Your task to perform on an android device: turn on translation in the chrome app Image 0: 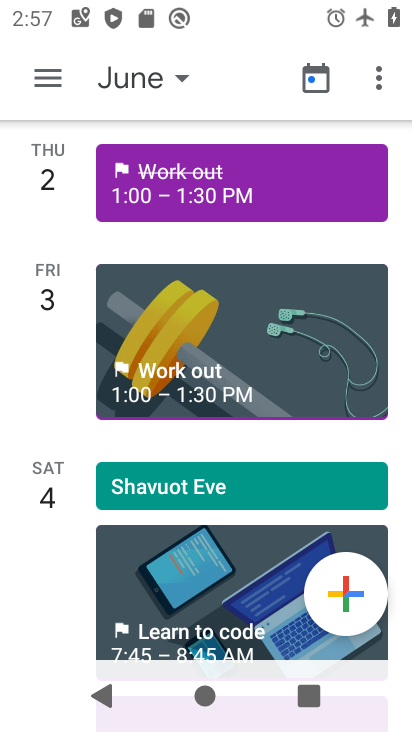
Step 0: press home button
Your task to perform on an android device: turn on translation in the chrome app Image 1: 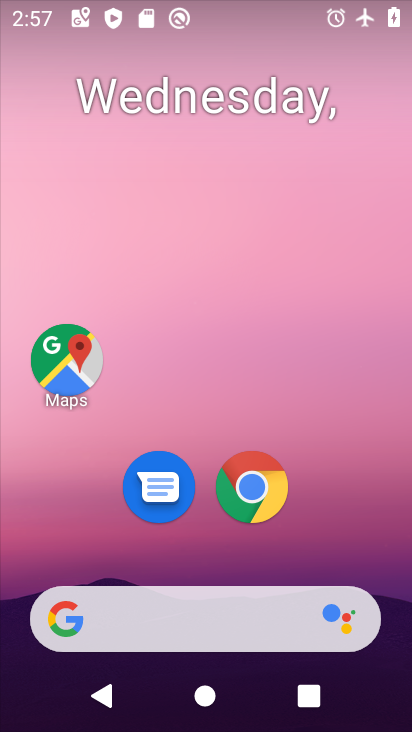
Step 1: drag from (378, 554) to (362, 141)
Your task to perform on an android device: turn on translation in the chrome app Image 2: 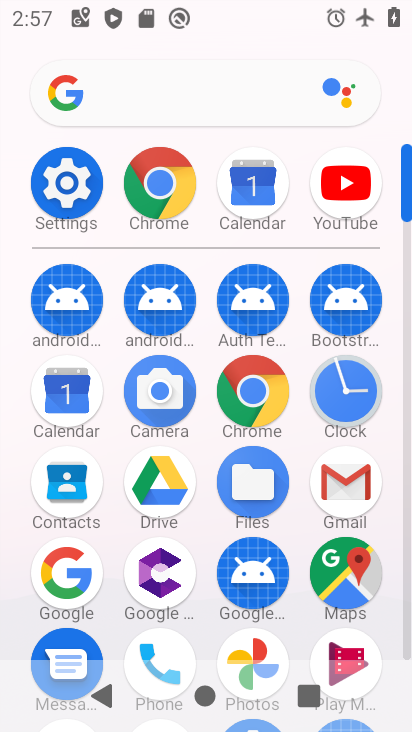
Step 2: click (257, 401)
Your task to perform on an android device: turn on translation in the chrome app Image 3: 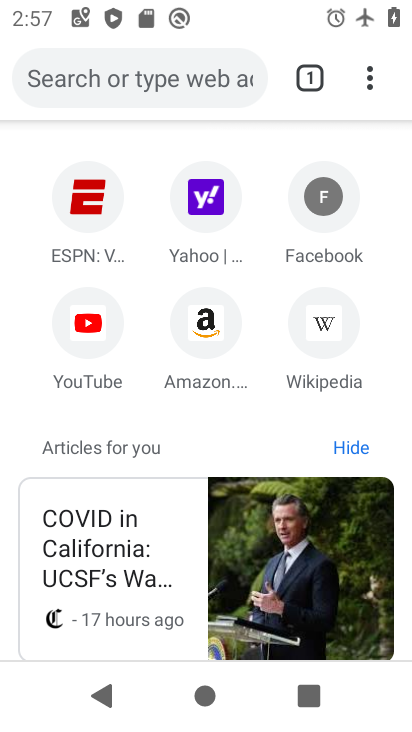
Step 3: click (369, 93)
Your task to perform on an android device: turn on translation in the chrome app Image 4: 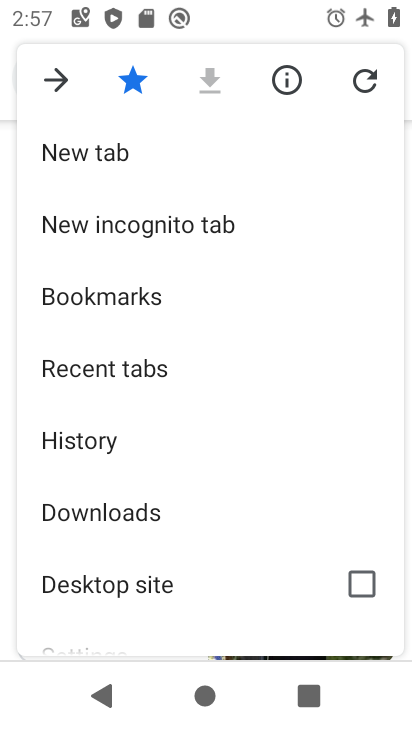
Step 4: drag from (236, 573) to (255, 469)
Your task to perform on an android device: turn on translation in the chrome app Image 5: 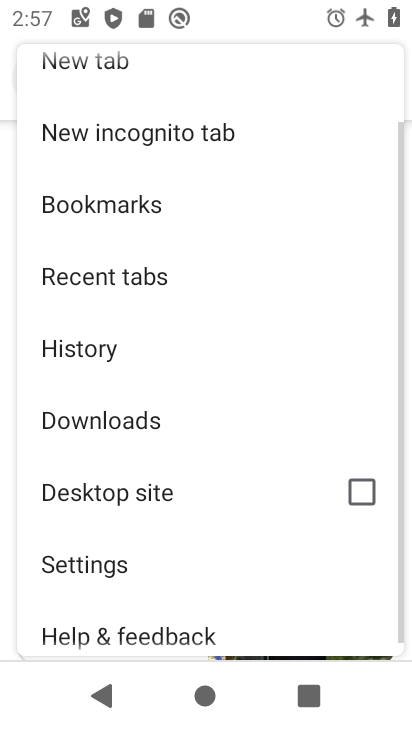
Step 5: drag from (253, 553) to (259, 420)
Your task to perform on an android device: turn on translation in the chrome app Image 6: 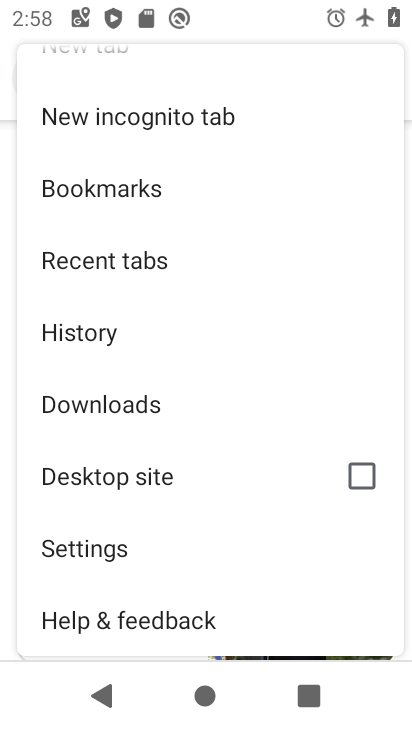
Step 6: click (161, 568)
Your task to perform on an android device: turn on translation in the chrome app Image 7: 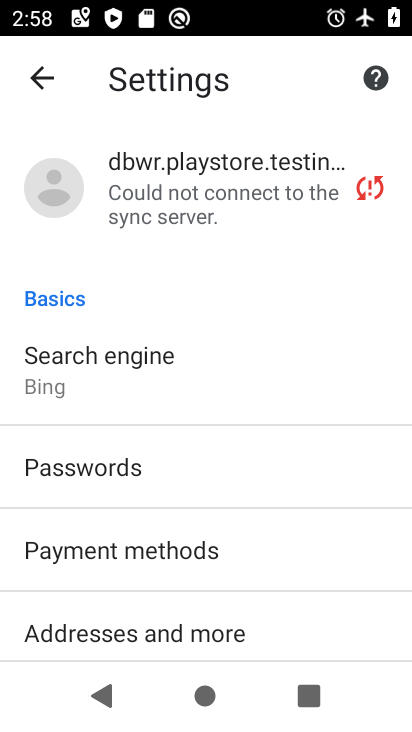
Step 7: drag from (288, 554) to (284, 460)
Your task to perform on an android device: turn on translation in the chrome app Image 8: 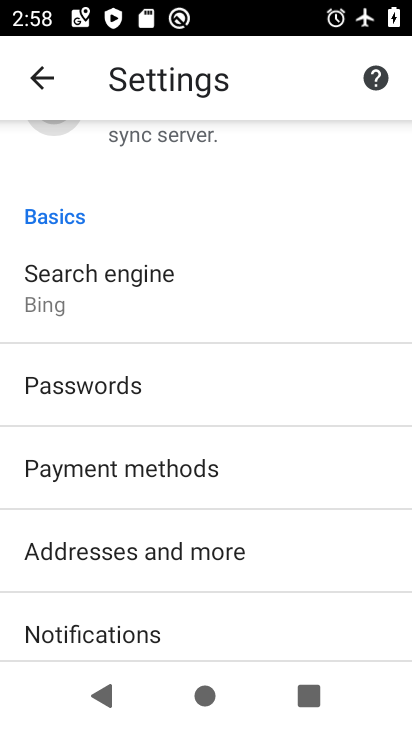
Step 8: drag from (312, 555) to (313, 453)
Your task to perform on an android device: turn on translation in the chrome app Image 9: 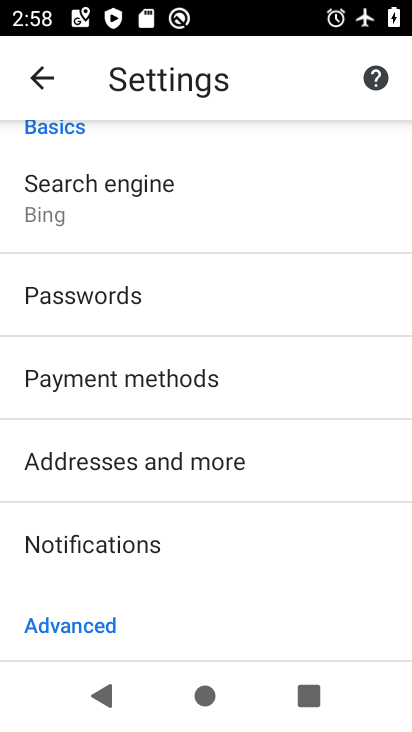
Step 9: drag from (319, 555) to (319, 433)
Your task to perform on an android device: turn on translation in the chrome app Image 10: 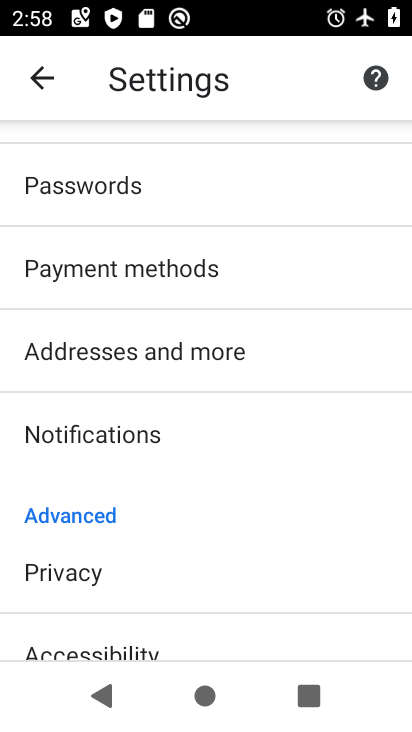
Step 10: drag from (322, 527) to (318, 419)
Your task to perform on an android device: turn on translation in the chrome app Image 11: 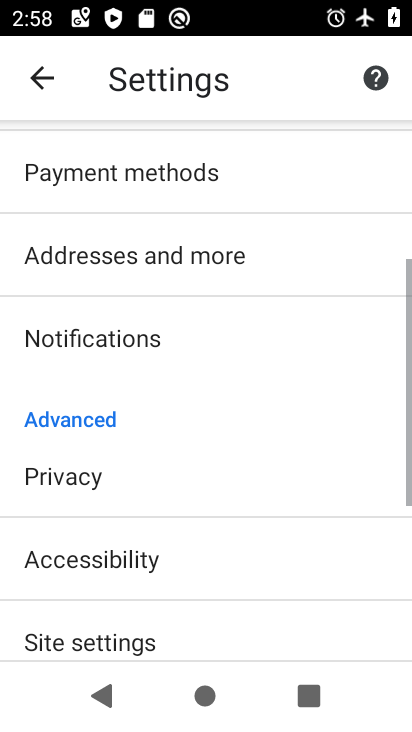
Step 11: drag from (302, 543) to (296, 401)
Your task to perform on an android device: turn on translation in the chrome app Image 12: 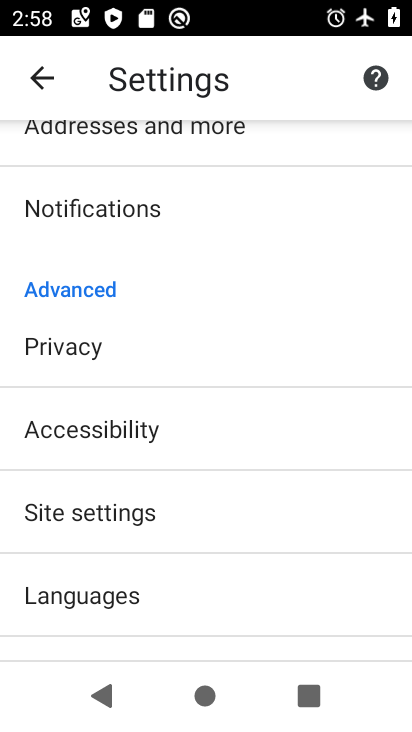
Step 12: drag from (312, 580) to (303, 440)
Your task to perform on an android device: turn on translation in the chrome app Image 13: 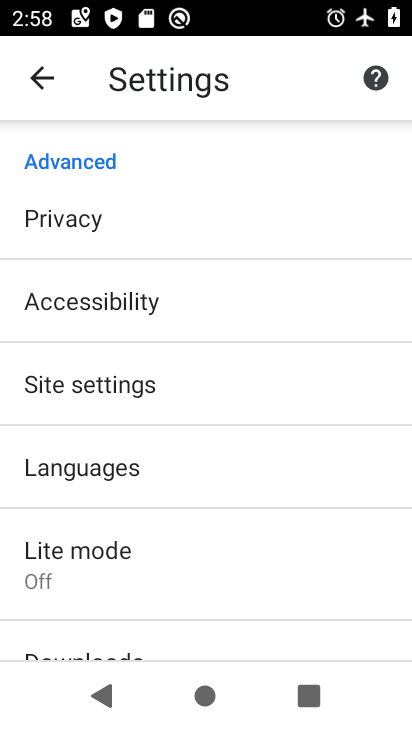
Step 13: click (217, 454)
Your task to perform on an android device: turn on translation in the chrome app Image 14: 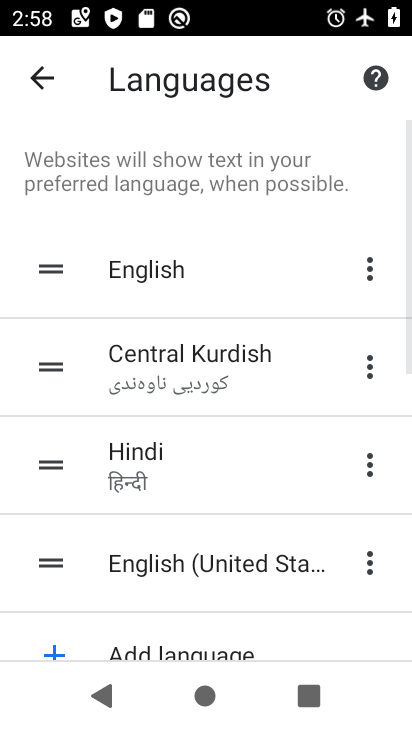
Step 14: task complete